Your task to perform on an android device: turn on location history Image 0: 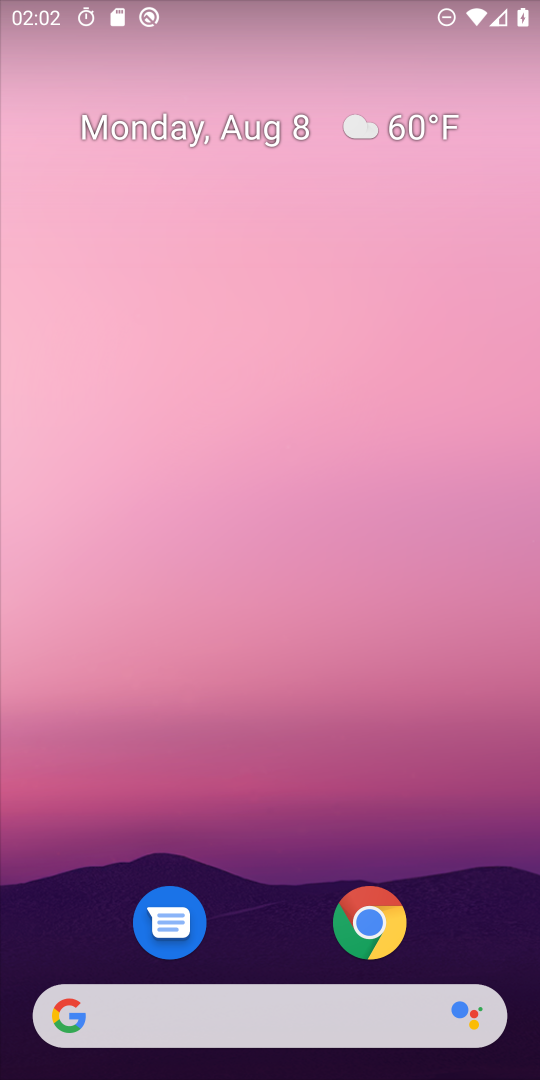
Step 0: drag from (498, 875) to (316, 139)
Your task to perform on an android device: turn on location history Image 1: 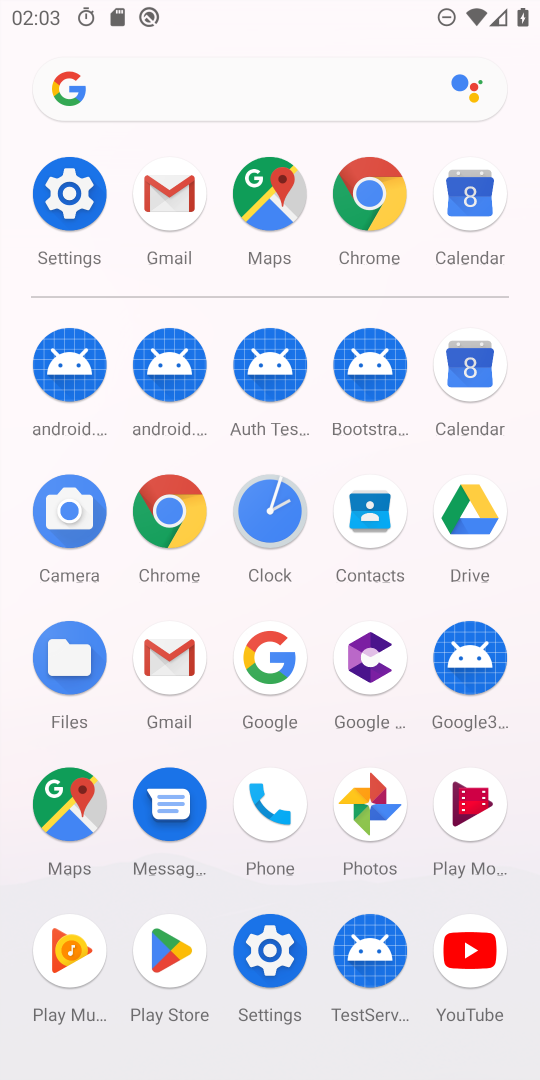
Step 1: click (274, 200)
Your task to perform on an android device: turn on location history Image 2: 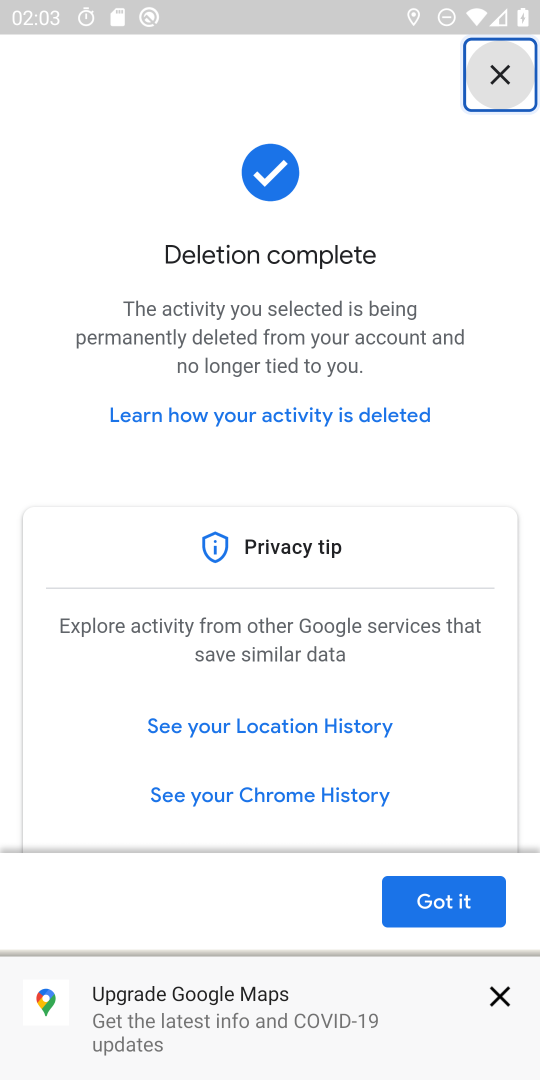
Step 2: task complete